Your task to perform on an android device: turn off sleep mode Image 0: 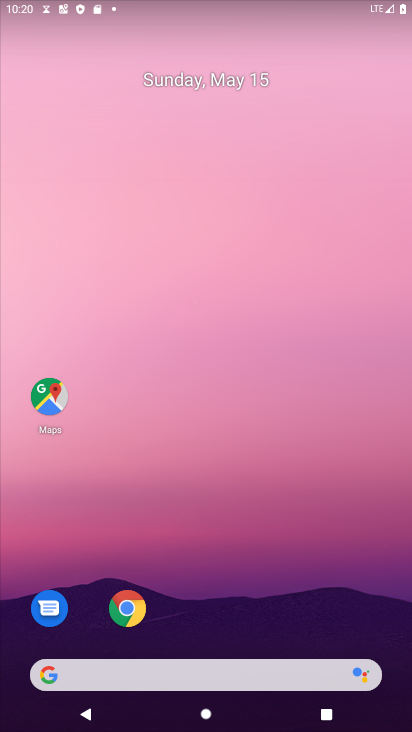
Step 0: drag from (251, 545) to (286, 75)
Your task to perform on an android device: turn off sleep mode Image 1: 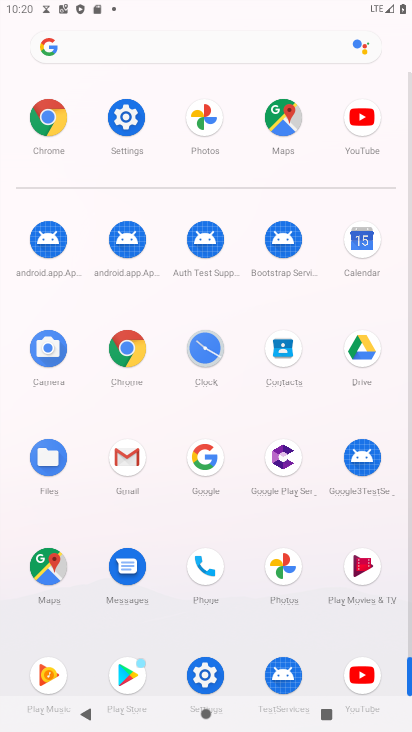
Step 1: click (132, 117)
Your task to perform on an android device: turn off sleep mode Image 2: 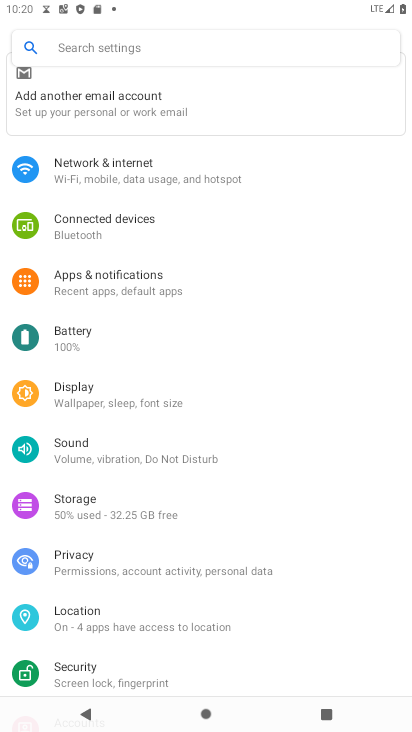
Step 2: click (94, 416)
Your task to perform on an android device: turn off sleep mode Image 3: 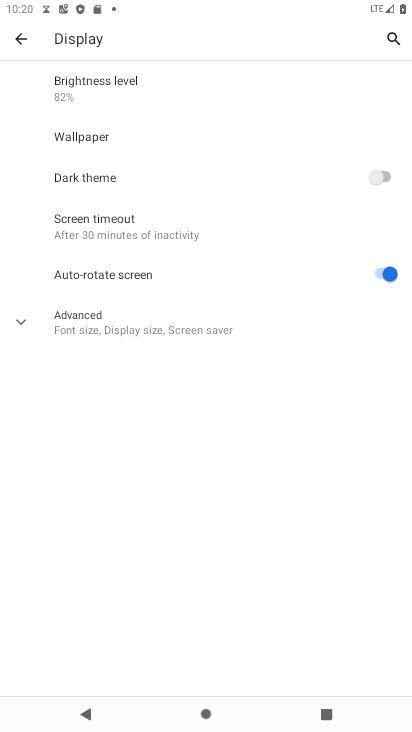
Step 3: click (112, 229)
Your task to perform on an android device: turn off sleep mode Image 4: 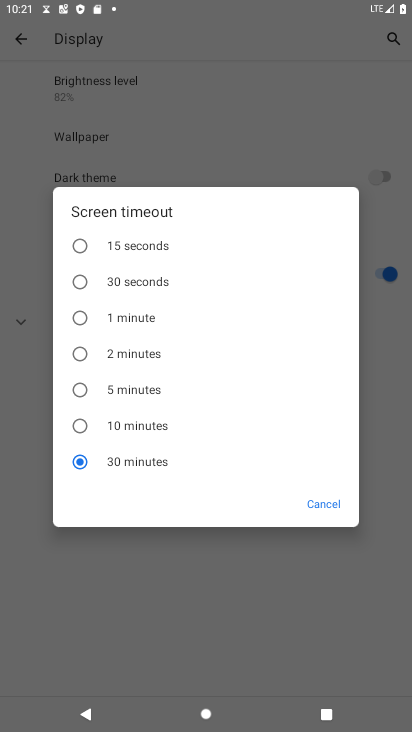
Step 4: task complete